Your task to perform on an android device: check data usage Image 0: 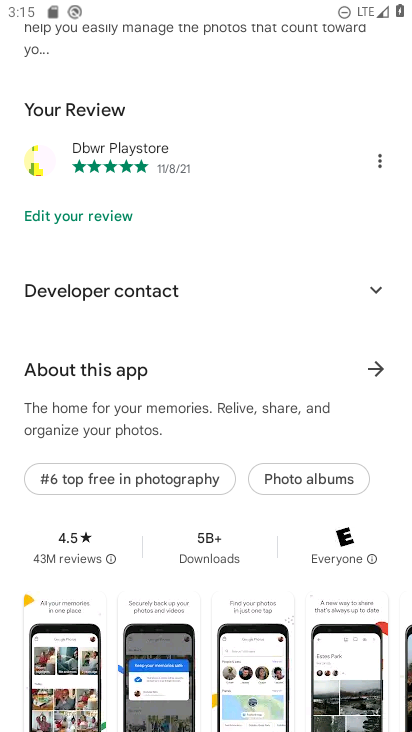
Step 0: drag from (199, 580) to (238, 174)
Your task to perform on an android device: check data usage Image 1: 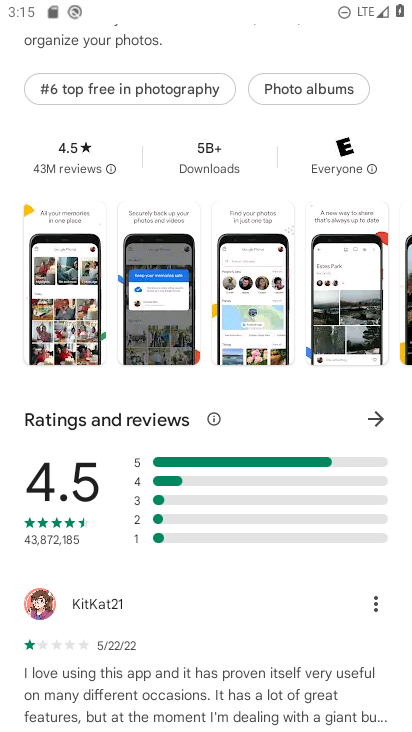
Step 1: drag from (235, 122) to (233, 595)
Your task to perform on an android device: check data usage Image 2: 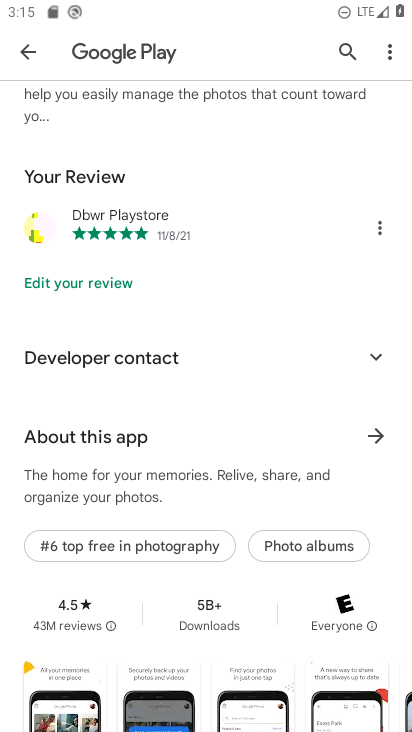
Step 2: press home button
Your task to perform on an android device: check data usage Image 3: 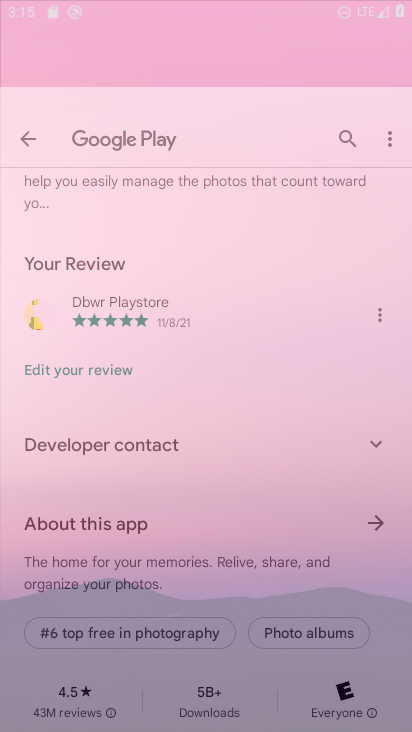
Step 3: drag from (190, 578) to (279, 4)
Your task to perform on an android device: check data usage Image 4: 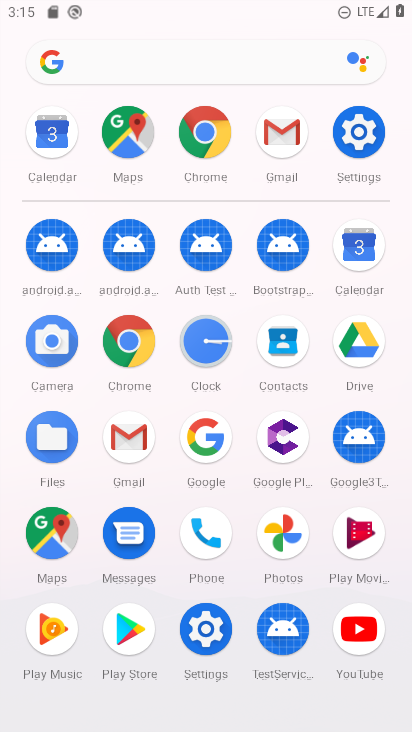
Step 4: click (356, 135)
Your task to perform on an android device: check data usage Image 5: 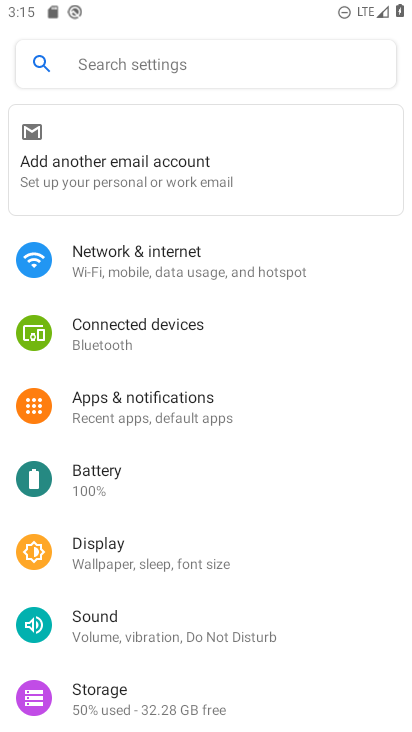
Step 5: click (123, 270)
Your task to perform on an android device: check data usage Image 6: 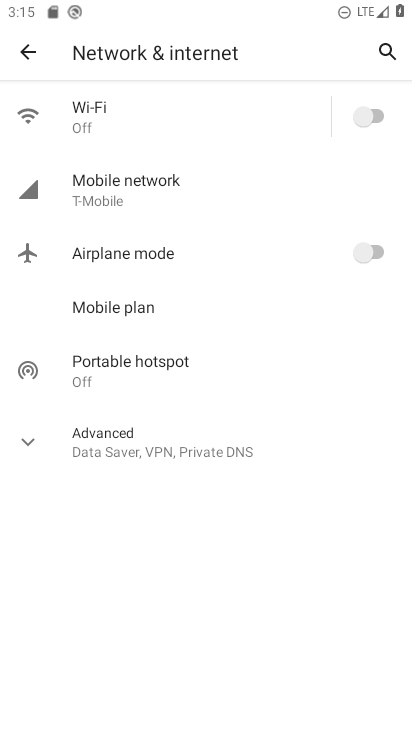
Step 6: drag from (205, 512) to (294, 162)
Your task to perform on an android device: check data usage Image 7: 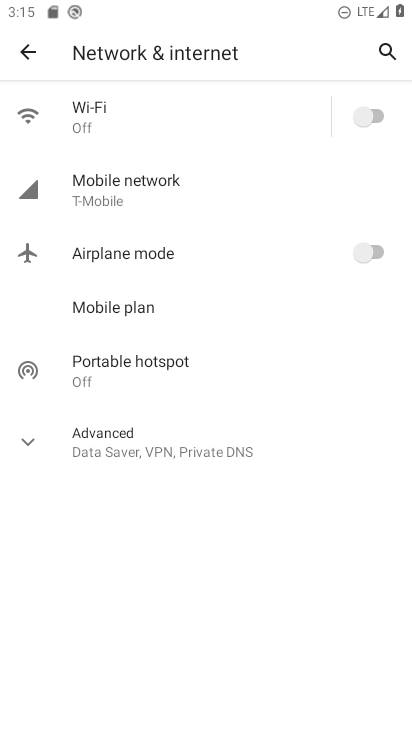
Step 7: click (187, 179)
Your task to perform on an android device: check data usage Image 8: 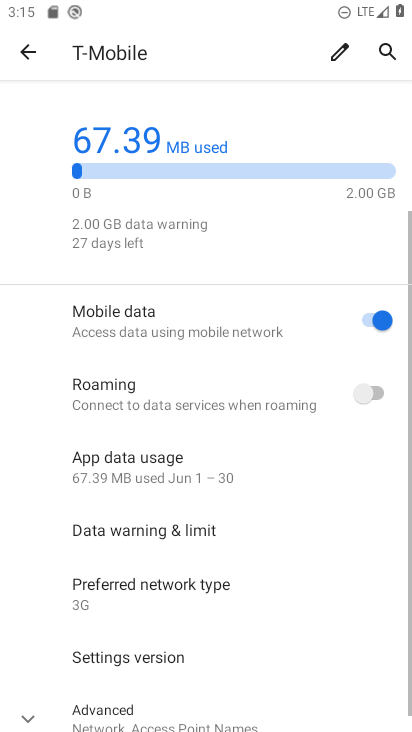
Step 8: task complete